Your task to perform on an android device: Set the phone to "Do not disturb". Image 0: 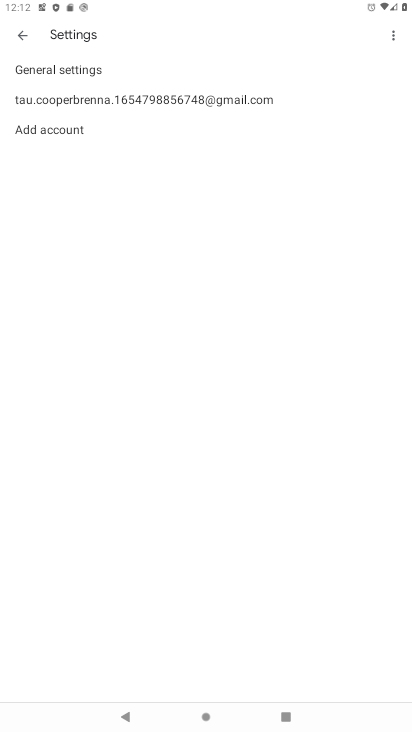
Step 0: press home button
Your task to perform on an android device: Set the phone to "Do not disturb". Image 1: 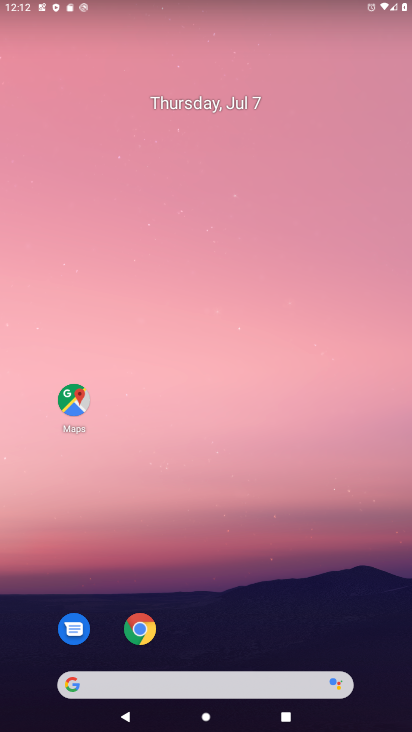
Step 1: drag from (211, 611) to (179, 175)
Your task to perform on an android device: Set the phone to "Do not disturb". Image 2: 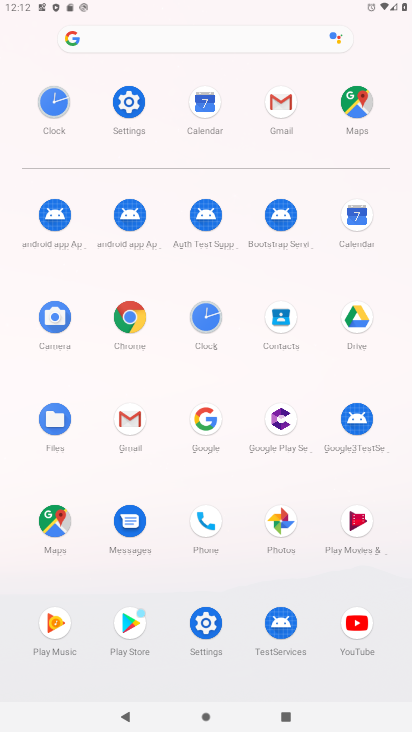
Step 2: click (131, 110)
Your task to perform on an android device: Set the phone to "Do not disturb". Image 3: 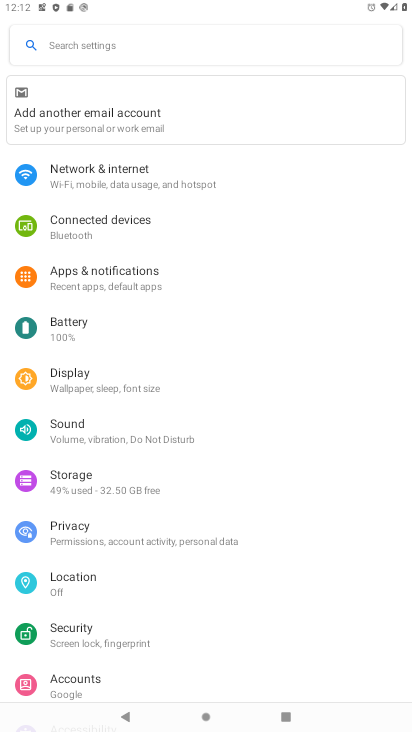
Step 3: click (112, 436)
Your task to perform on an android device: Set the phone to "Do not disturb". Image 4: 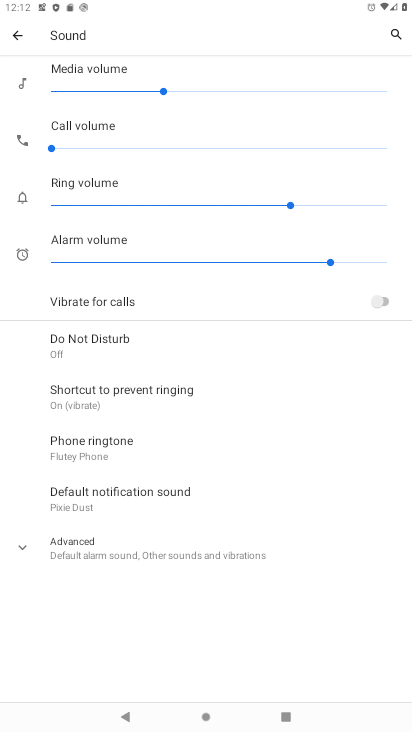
Step 4: click (132, 346)
Your task to perform on an android device: Set the phone to "Do not disturb". Image 5: 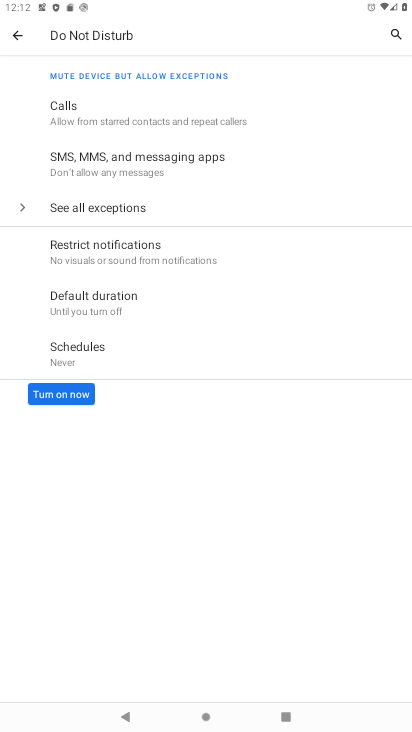
Step 5: click (54, 402)
Your task to perform on an android device: Set the phone to "Do not disturb". Image 6: 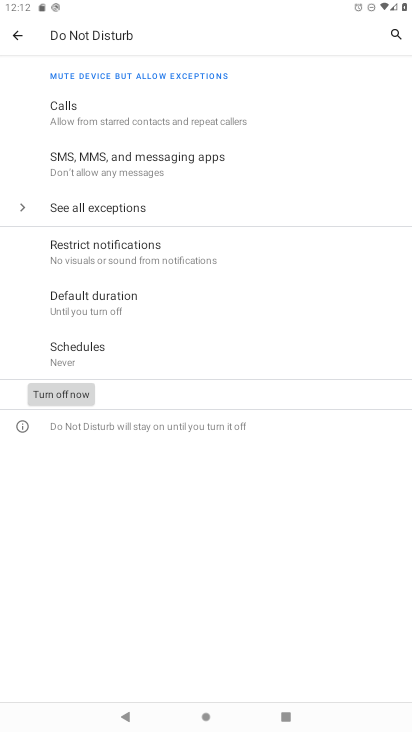
Step 6: task complete